Your task to perform on an android device: Open the web browser Image 0: 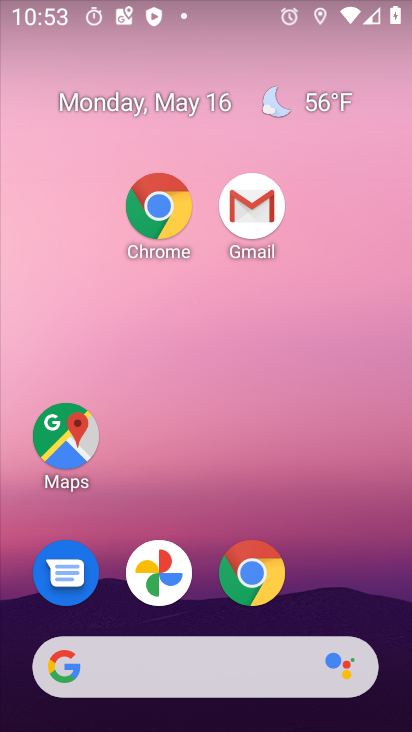
Step 0: click (24, 150)
Your task to perform on an android device: Open the web browser Image 1: 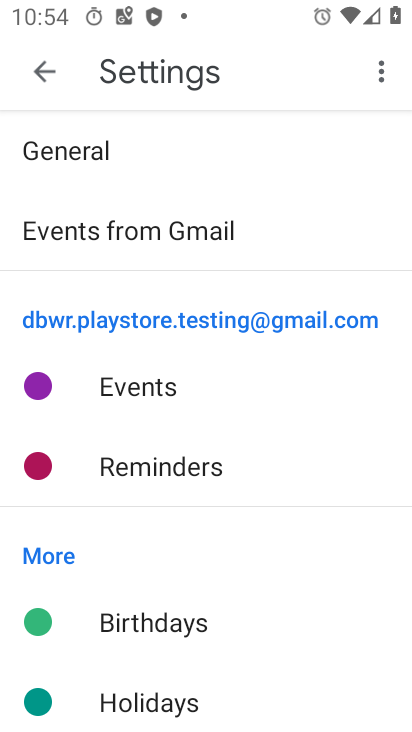
Step 1: press back button
Your task to perform on an android device: Open the web browser Image 2: 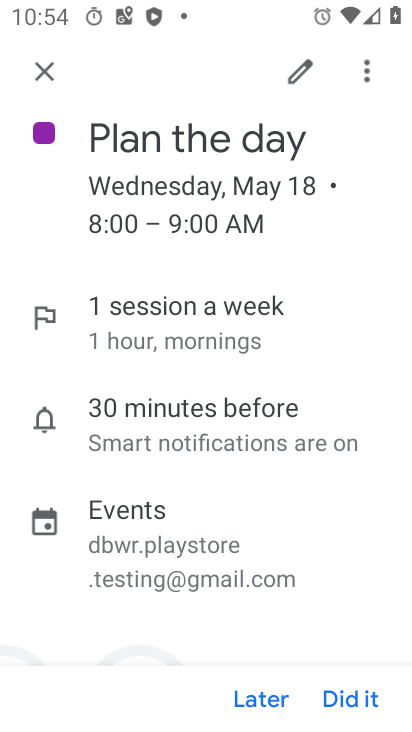
Step 2: press home button
Your task to perform on an android device: Open the web browser Image 3: 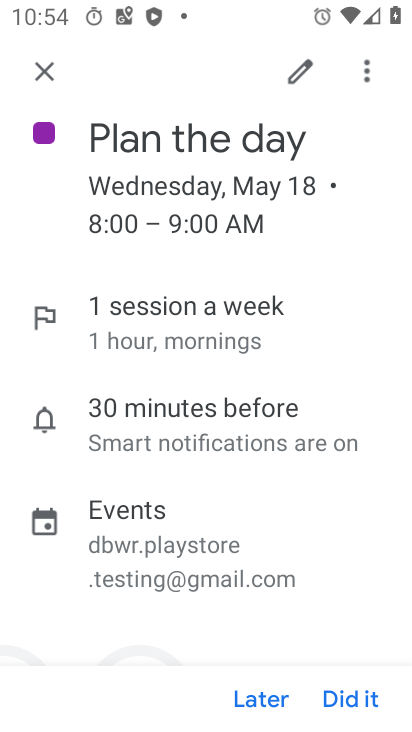
Step 3: press home button
Your task to perform on an android device: Open the web browser Image 4: 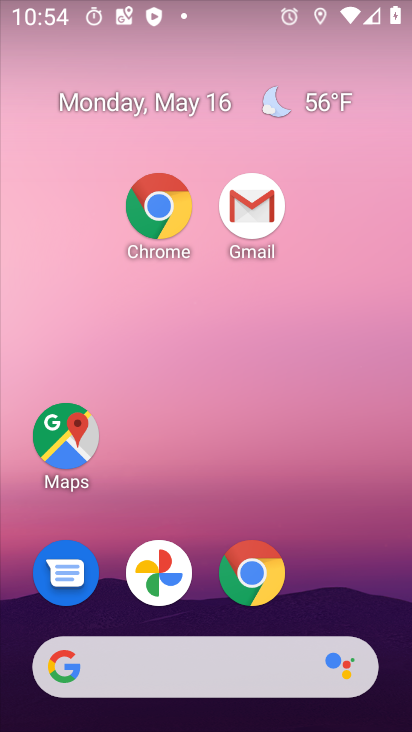
Step 4: press back button
Your task to perform on an android device: Open the web browser Image 5: 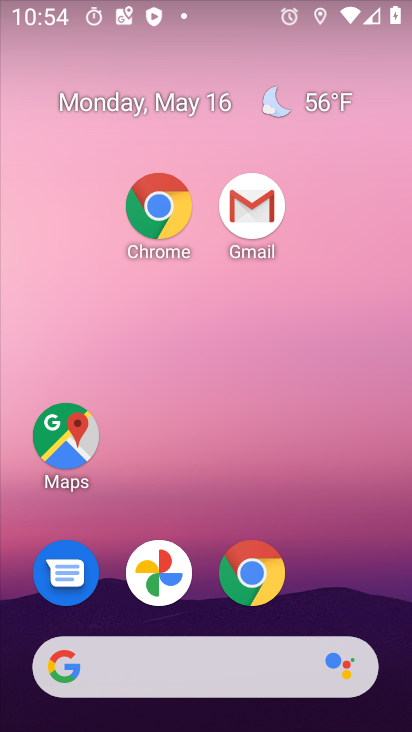
Step 5: press back button
Your task to perform on an android device: Open the web browser Image 6: 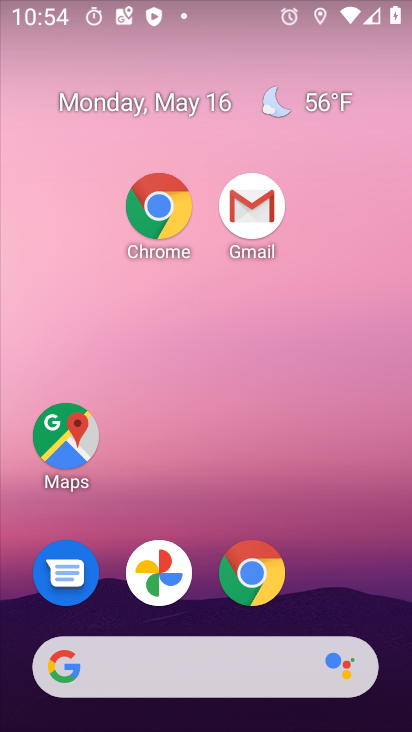
Step 6: press back button
Your task to perform on an android device: Open the web browser Image 7: 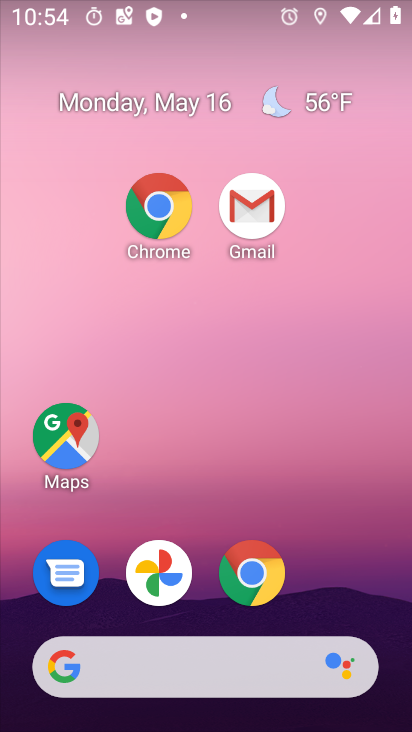
Step 7: drag from (132, 102) to (101, 41)
Your task to perform on an android device: Open the web browser Image 8: 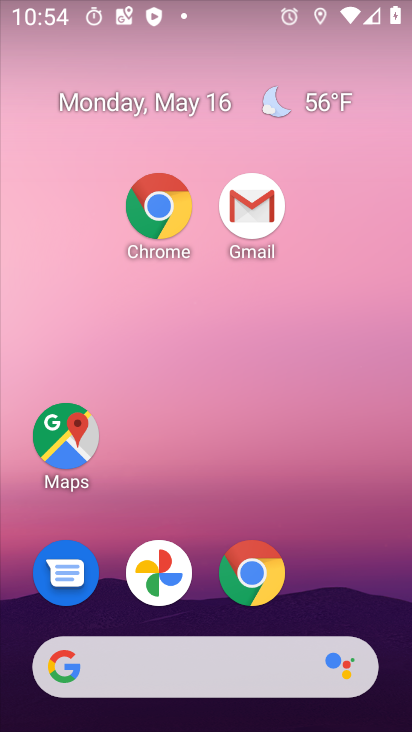
Step 8: drag from (305, 543) to (150, 115)
Your task to perform on an android device: Open the web browser Image 9: 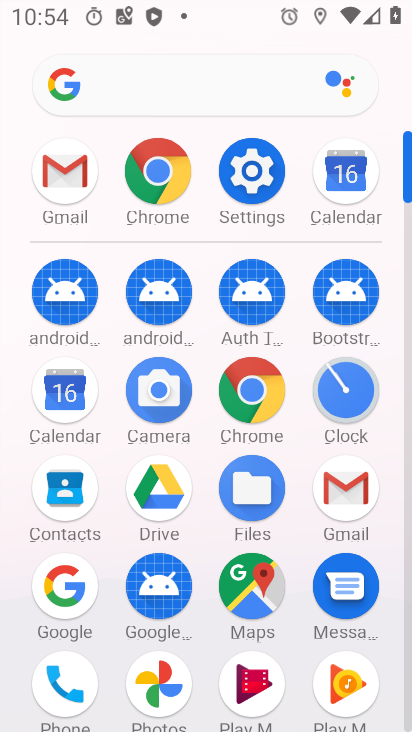
Step 9: drag from (331, 565) to (195, 105)
Your task to perform on an android device: Open the web browser Image 10: 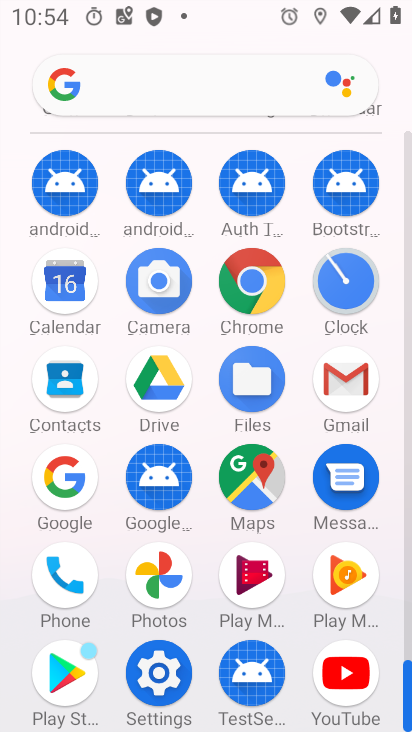
Step 10: click (245, 281)
Your task to perform on an android device: Open the web browser Image 11: 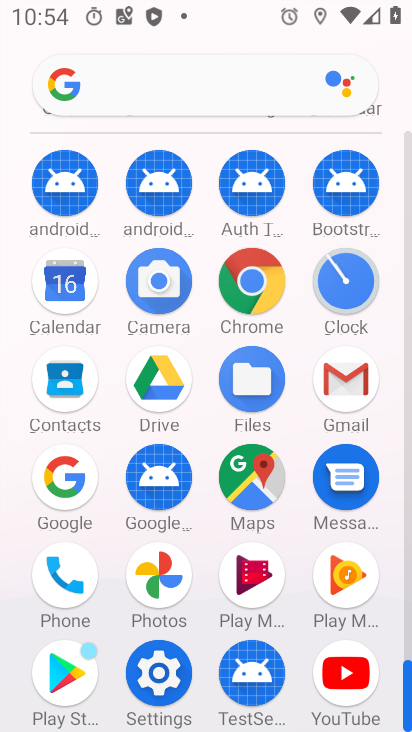
Step 11: click (249, 281)
Your task to perform on an android device: Open the web browser Image 12: 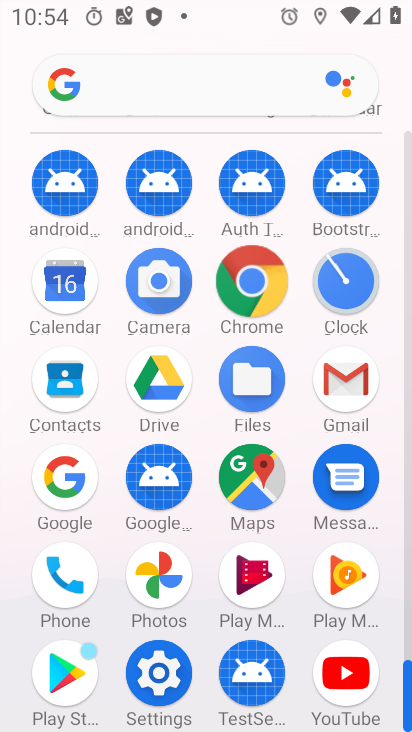
Step 12: click (246, 281)
Your task to perform on an android device: Open the web browser Image 13: 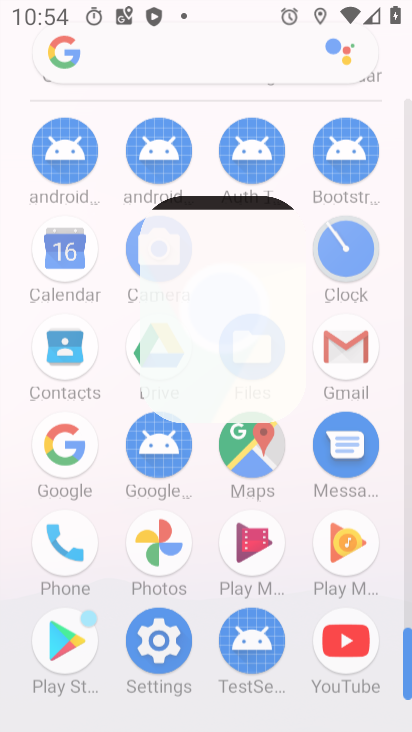
Step 13: click (248, 280)
Your task to perform on an android device: Open the web browser Image 14: 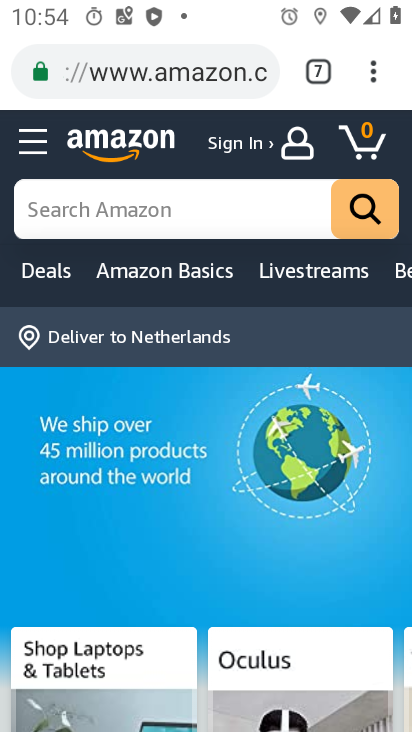
Step 14: click (367, 66)
Your task to perform on an android device: Open the web browser Image 15: 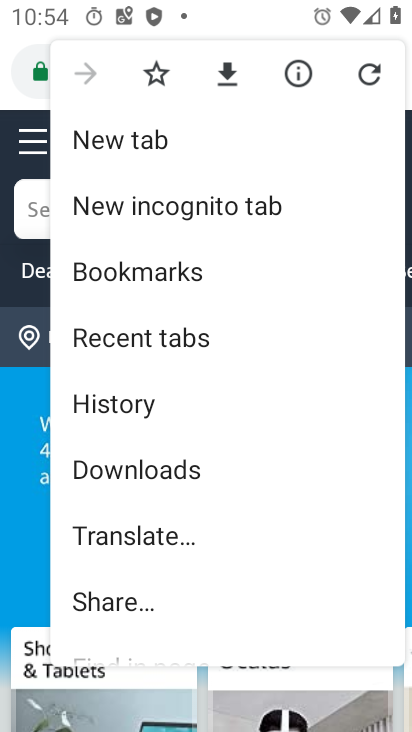
Step 15: click (135, 132)
Your task to perform on an android device: Open the web browser Image 16: 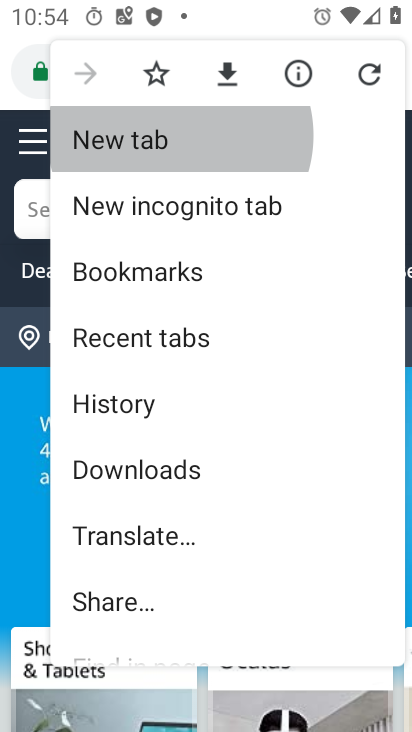
Step 16: click (136, 131)
Your task to perform on an android device: Open the web browser Image 17: 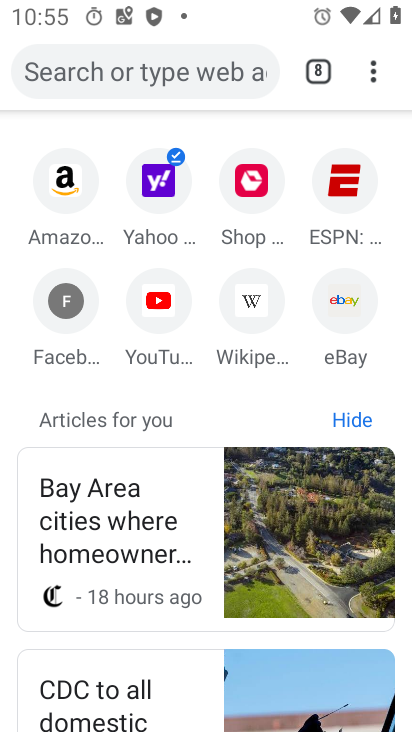
Step 17: drag from (363, 72) to (120, 140)
Your task to perform on an android device: Open the web browser Image 18: 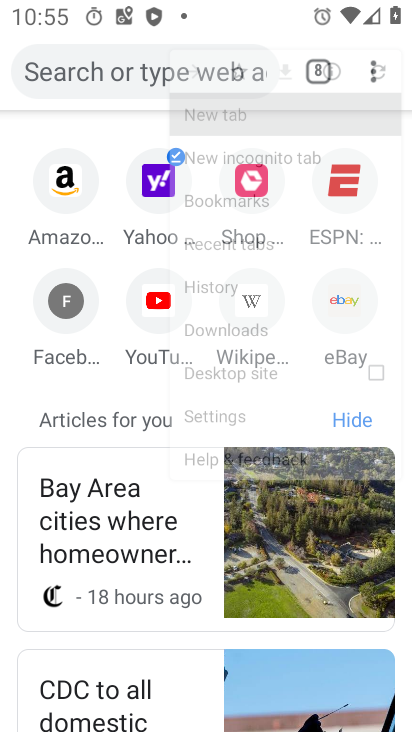
Step 18: click (119, 138)
Your task to perform on an android device: Open the web browser Image 19: 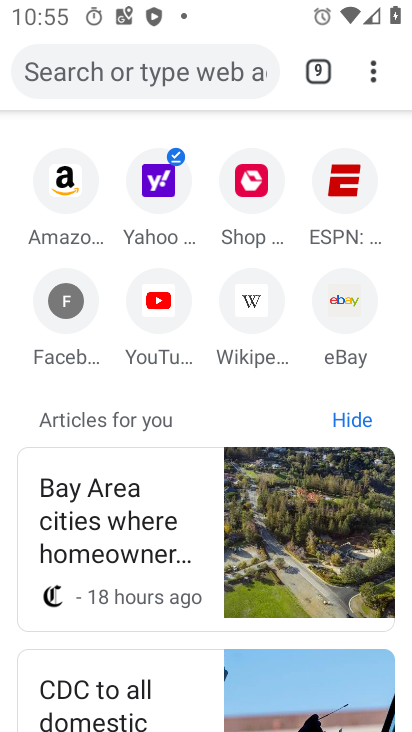
Step 19: task complete